Your task to perform on an android device: When is my next appointment? Image 0: 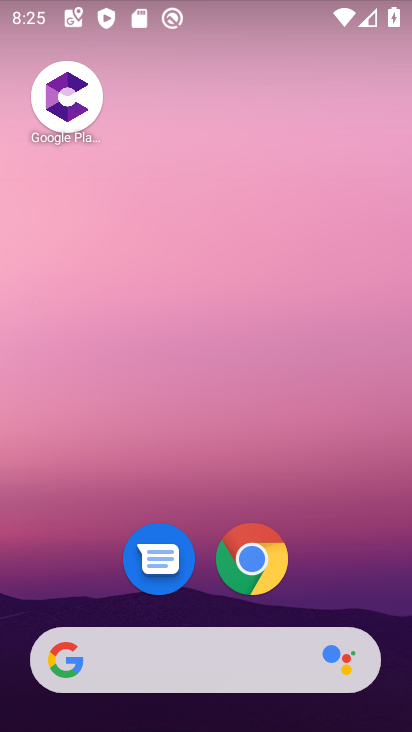
Step 0: drag from (188, 586) to (157, 65)
Your task to perform on an android device: When is my next appointment? Image 1: 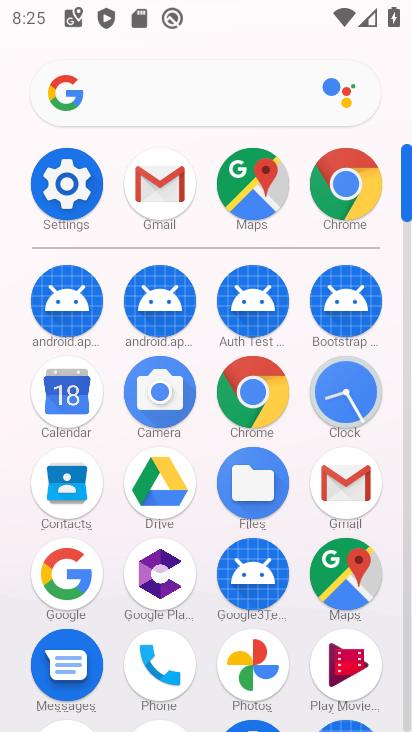
Step 1: click (84, 388)
Your task to perform on an android device: When is my next appointment? Image 2: 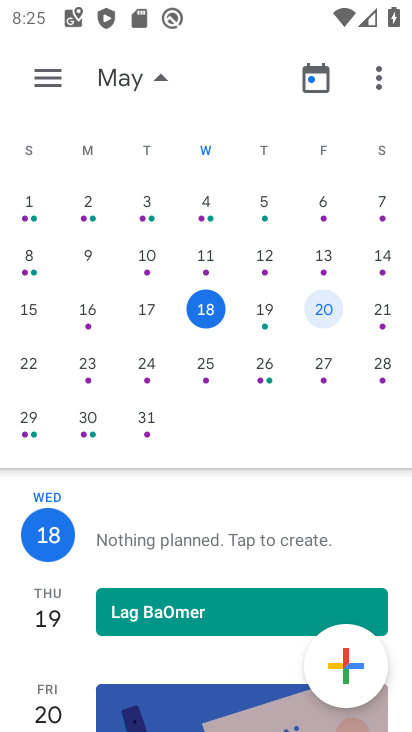
Step 2: click (386, 307)
Your task to perform on an android device: When is my next appointment? Image 3: 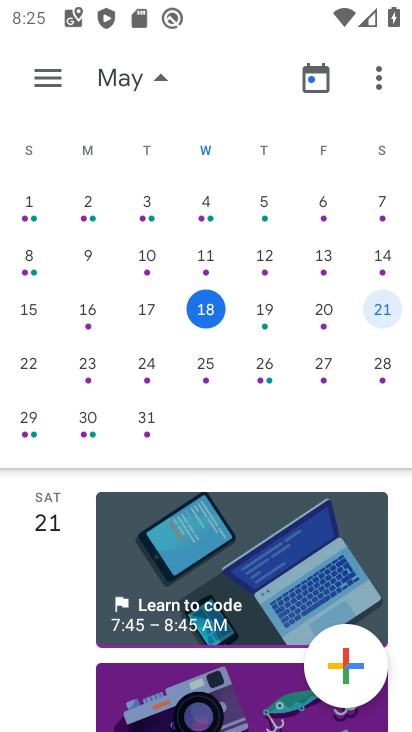
Step 3: task complete